Your task to perform on an android device: find which apps use the phone's location Image 0: 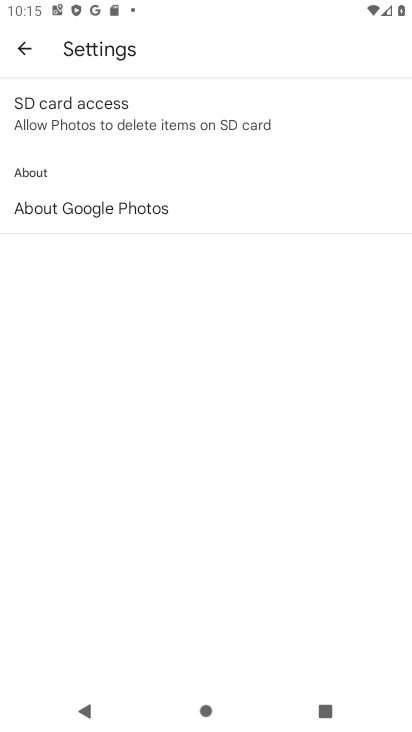
Step 0: press home button
Your task to perform on an android device: find which apps use the phone's location Image 1: 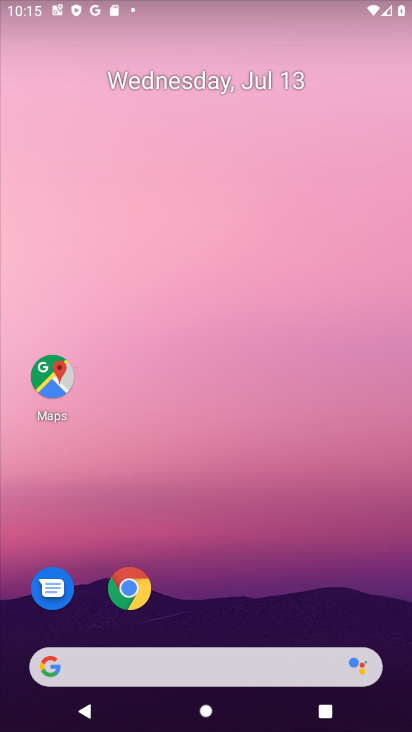
Step 1: drag from (253, 596) to (248, 211)
Your task to perform on an android device: find which apps use the phone's location Image 2: 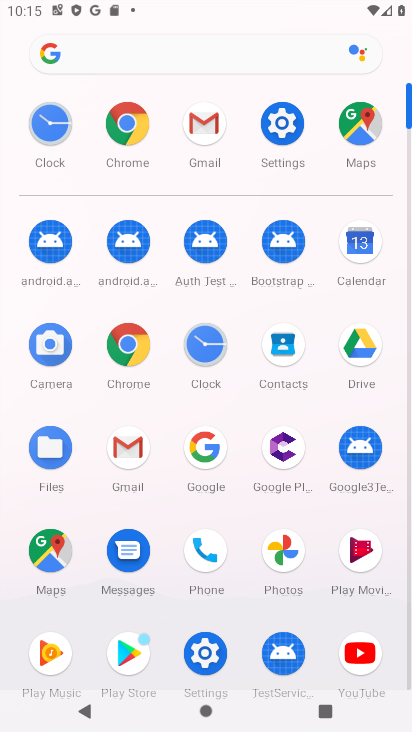
Step 2: click (289, 127)
Your task to perform on an android device: find which apps use the phone's location Image 3: 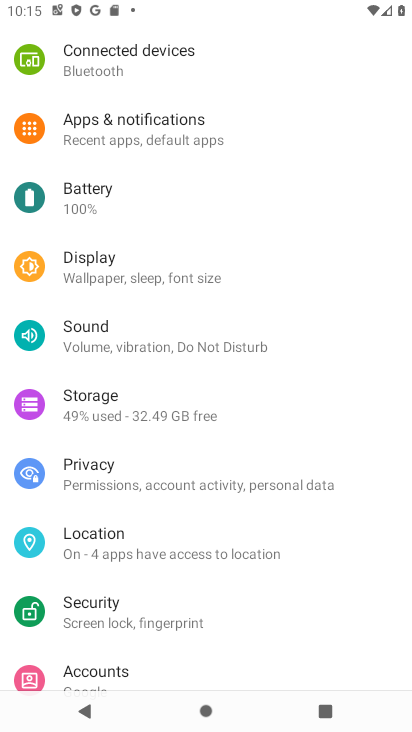
Step 3: click (129, 537)
Your task to perform on an android device: find which apps use the phone's location Image 4: 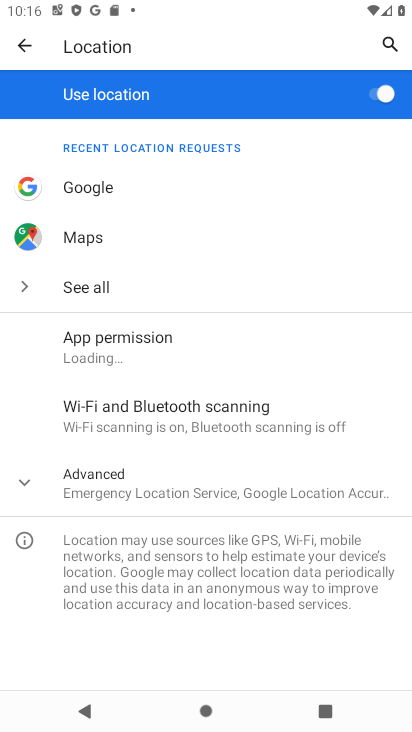
Step 4: click (121, 363)
Your task to perform on an android device: find which apps use the phone's location Image 5: 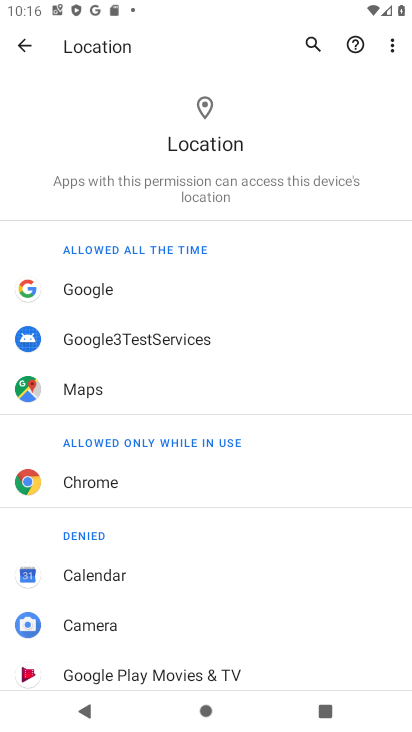
Step 5: task complete